Your task to perform on an android device: Search for flights from NYC to Chicago Image 0: 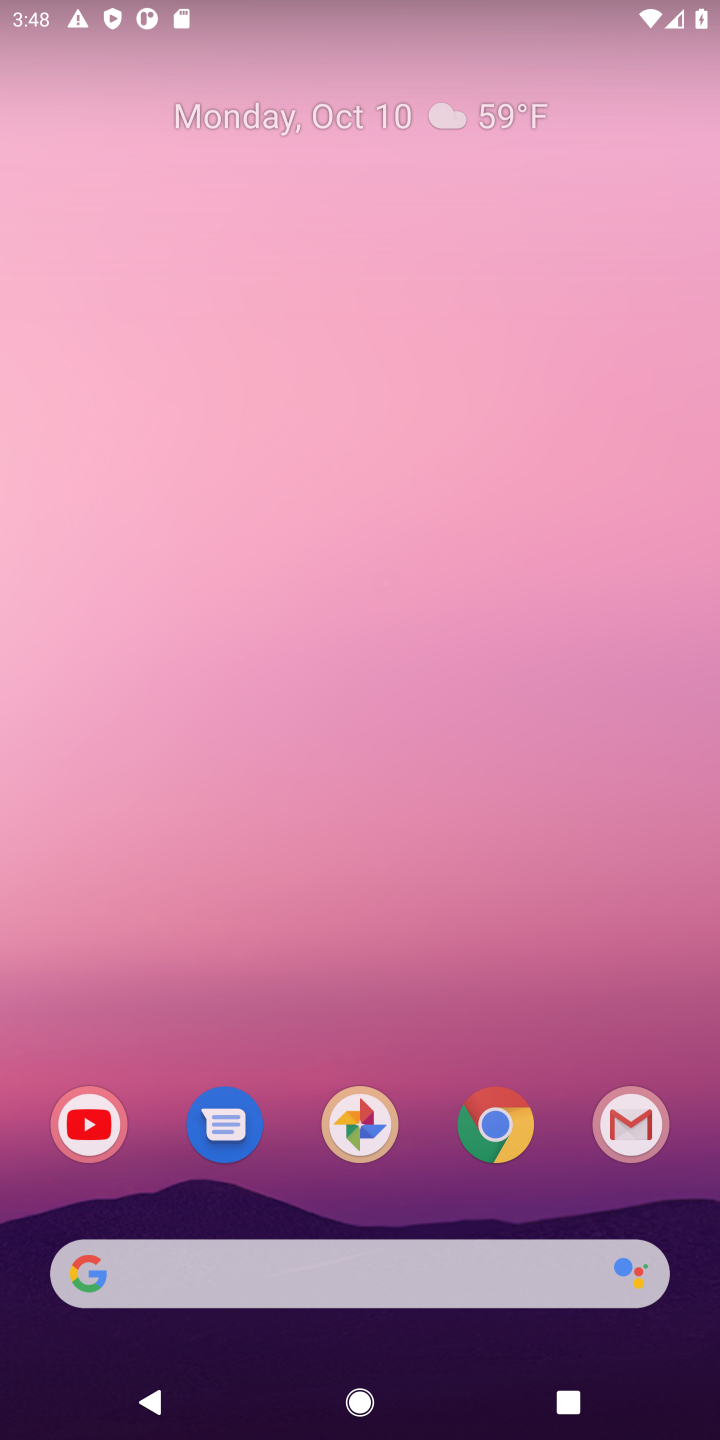
Step 0: drag from (330, 884) to (330, 359)
Your task to perform on an android device: Search for flights from NYC to Chicago Image 1: 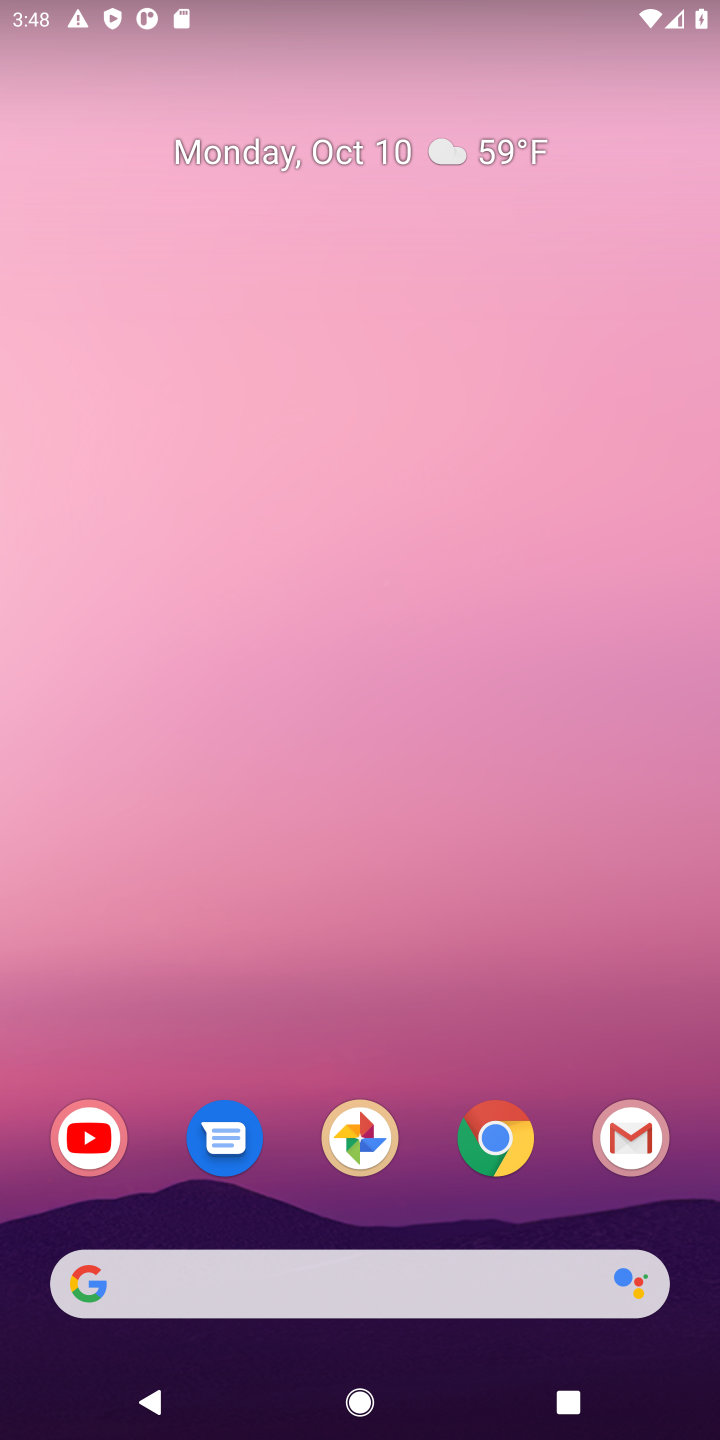
Step 1: drag from (352, 697) to (408, 284)
Your task to perform on an android device: Search for flights from NYC to Chicago Image 2: 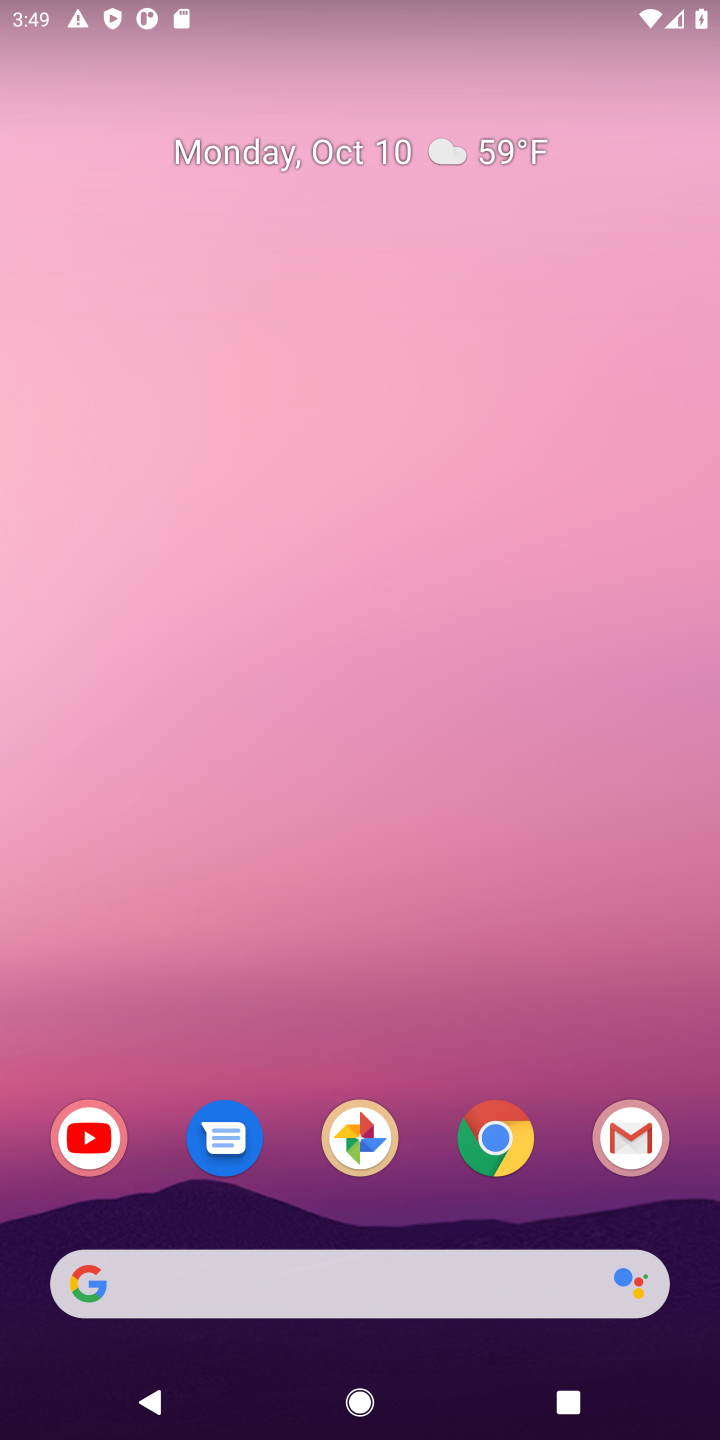
Step 2: drag from (234, 1183) to (222, 179)
Your task to perform on an android device: Search for flights from NYC to Chicago Image 3: 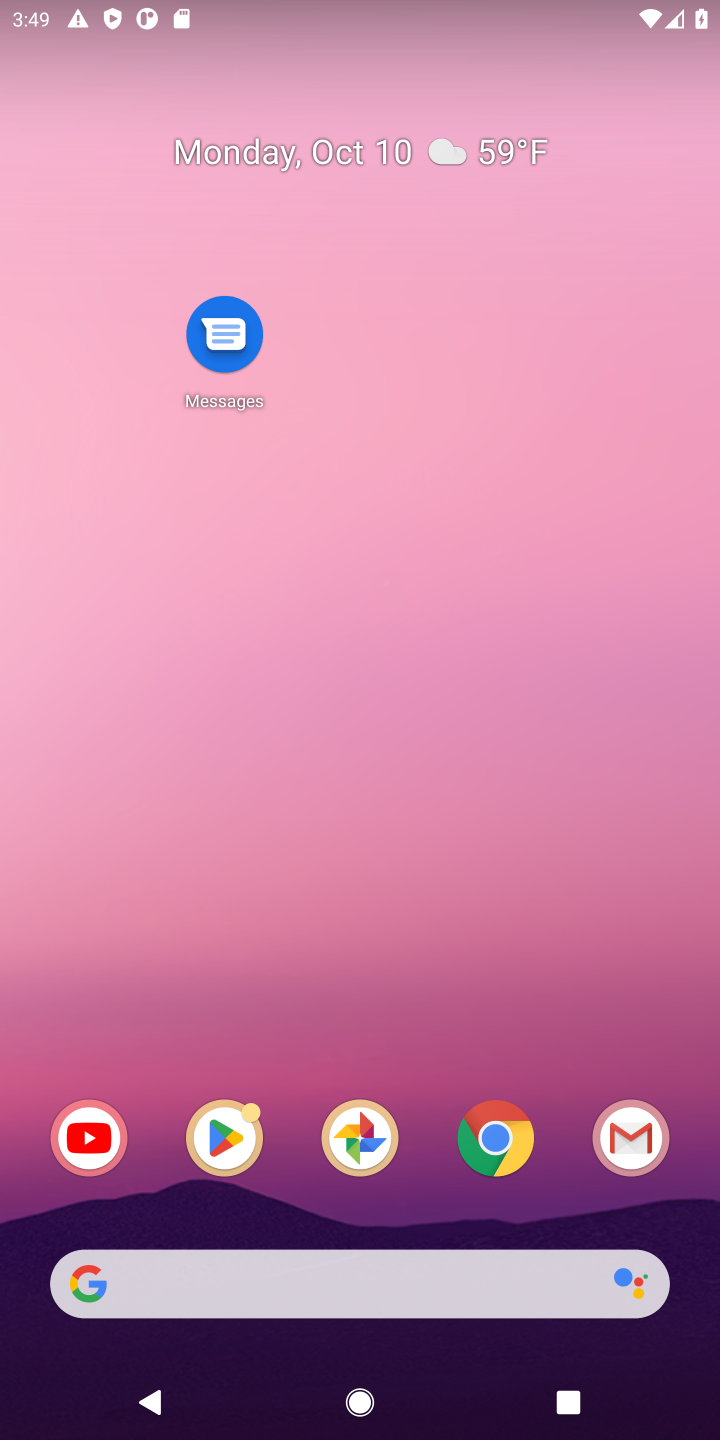
Step 3: drag from (307, 490) to (281, 136)
Your task to perform on an android device: Search for flights from NYC to Chicago Image 4: 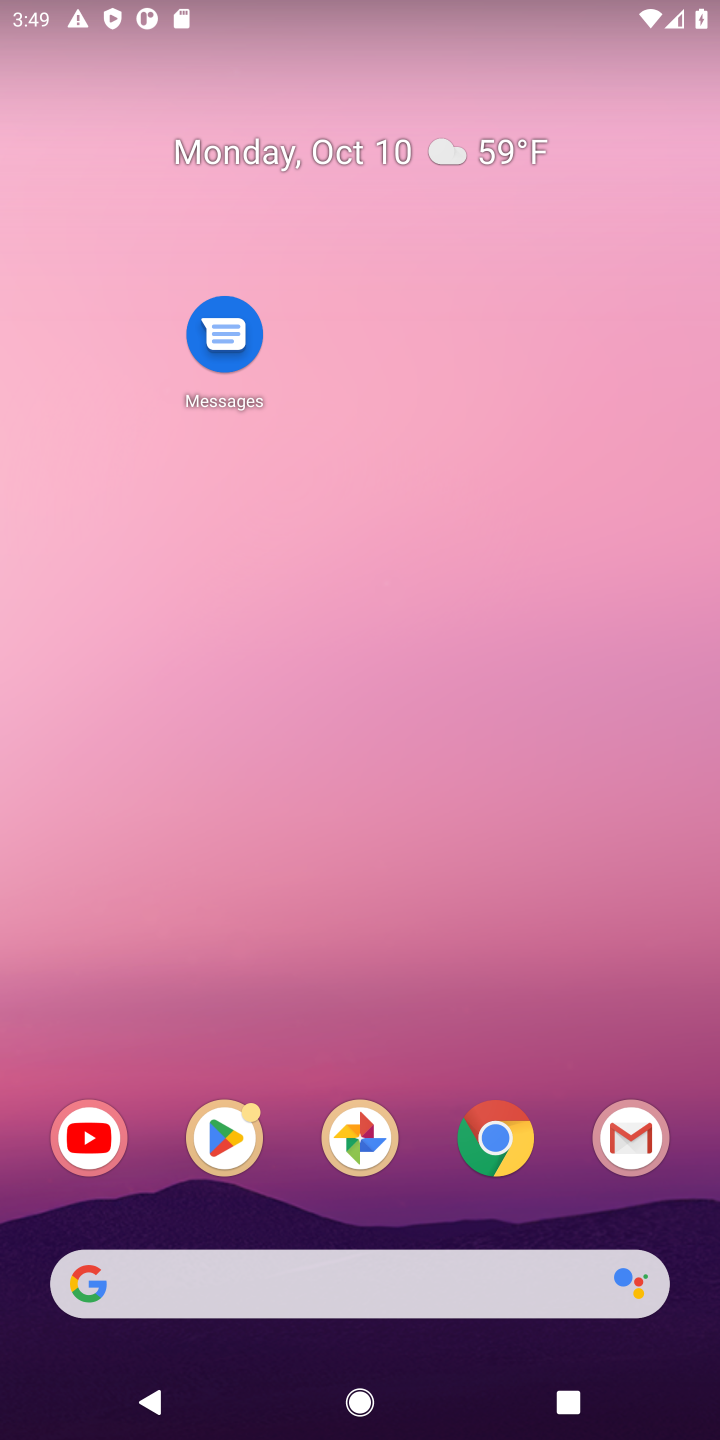
Step 4: drag from (390, 1037) to (365, 178)
Your task to perform on an android device: Search for flights from NYC to Chicago Image 5: 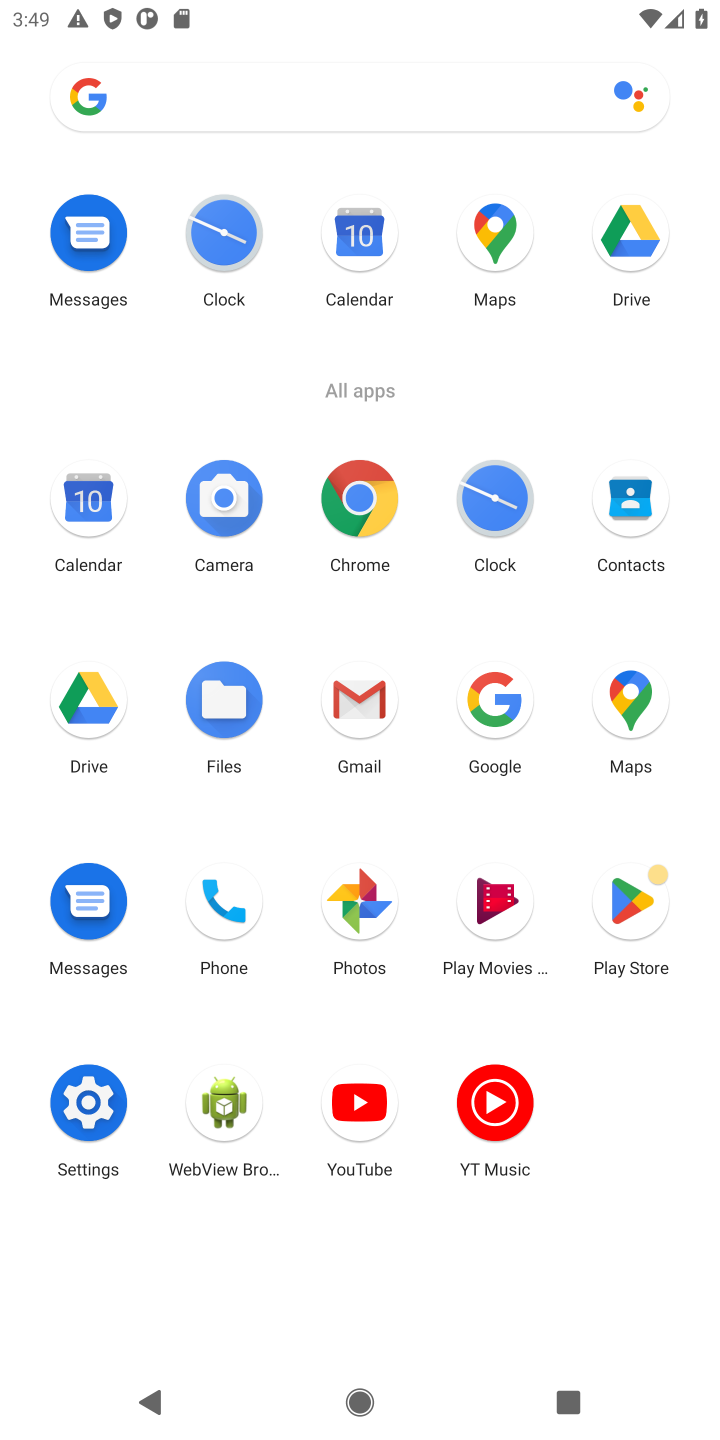
Step 5: click (480, 710)
Your task to perform on an android device: Search for flights from NYC to Chicago Image 6: 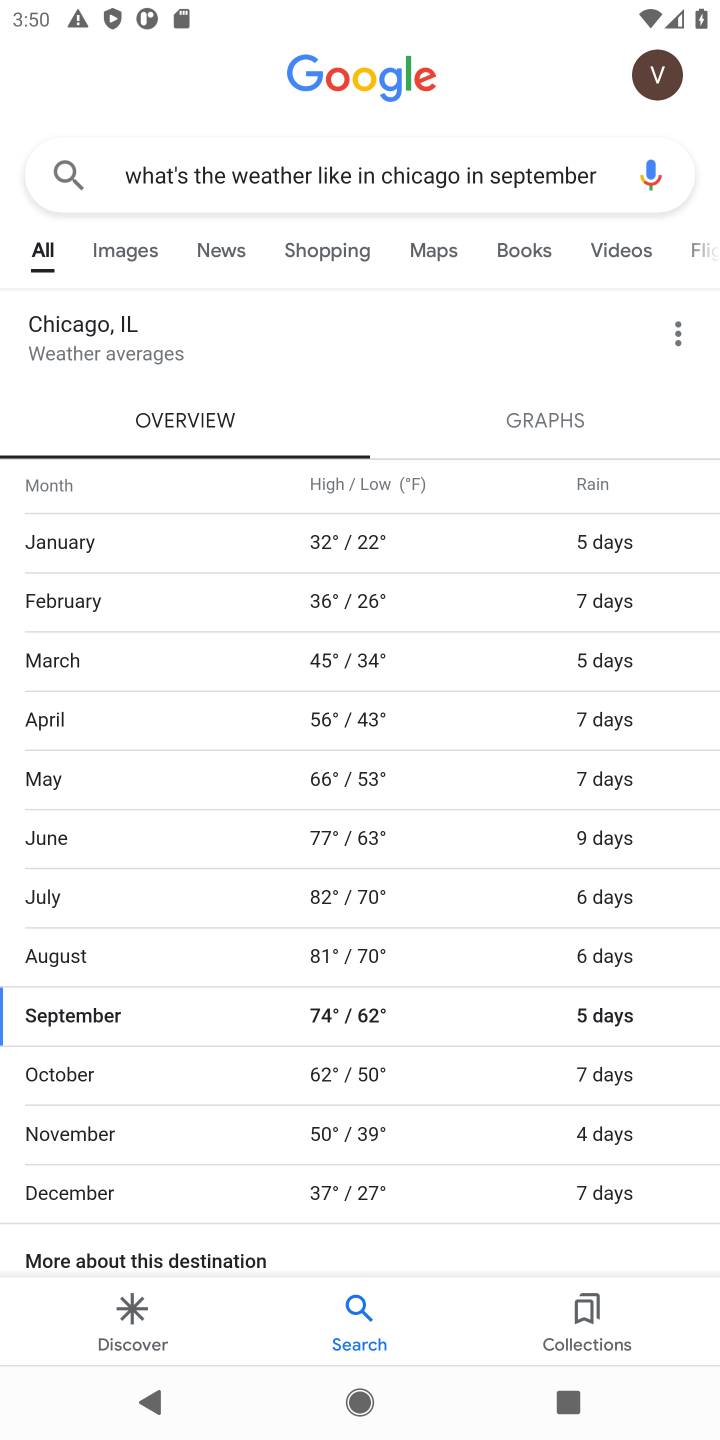
Step 6: click (241, 173)
Your task to perform on an android device: Search for flights from NYC to Chicago Image 7: 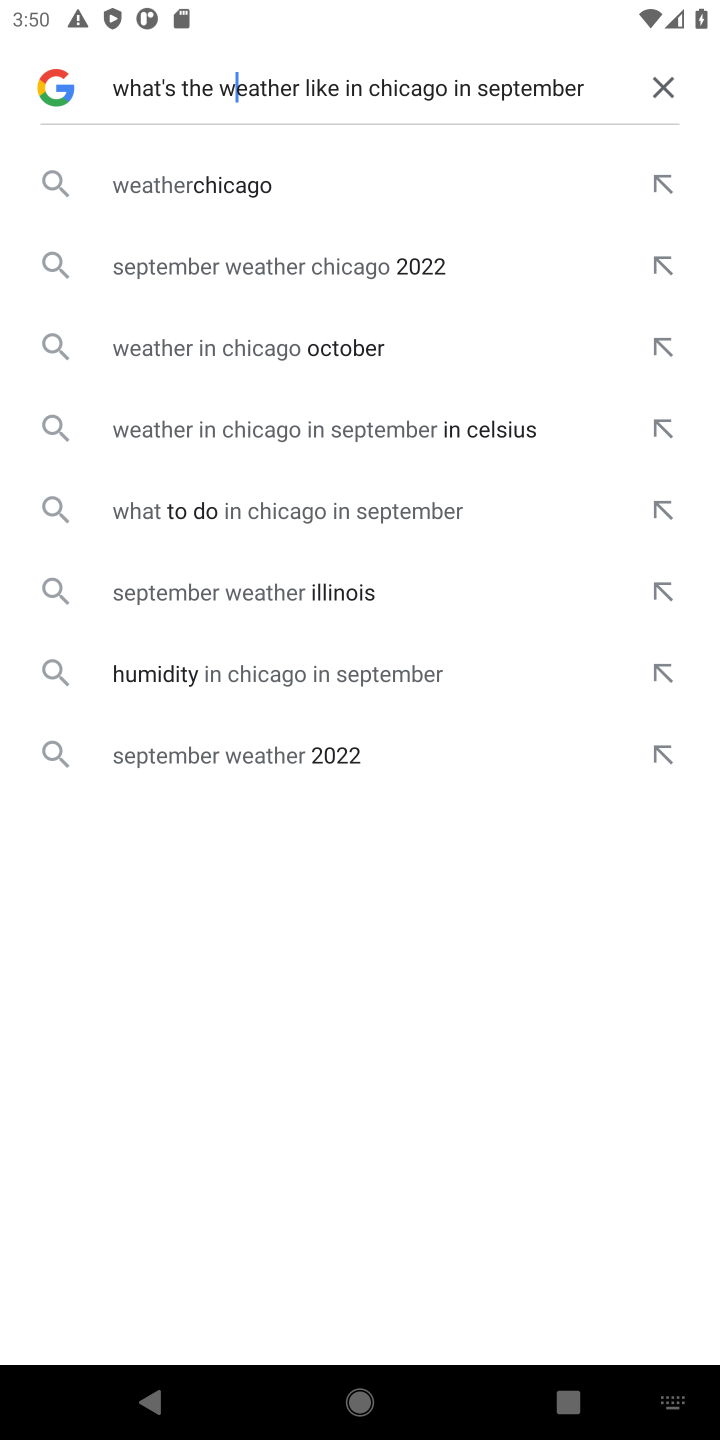
Step 7: click (670, 88)
Your task to perform on an android device: Search for flights from NYC to Chicago Image 8: 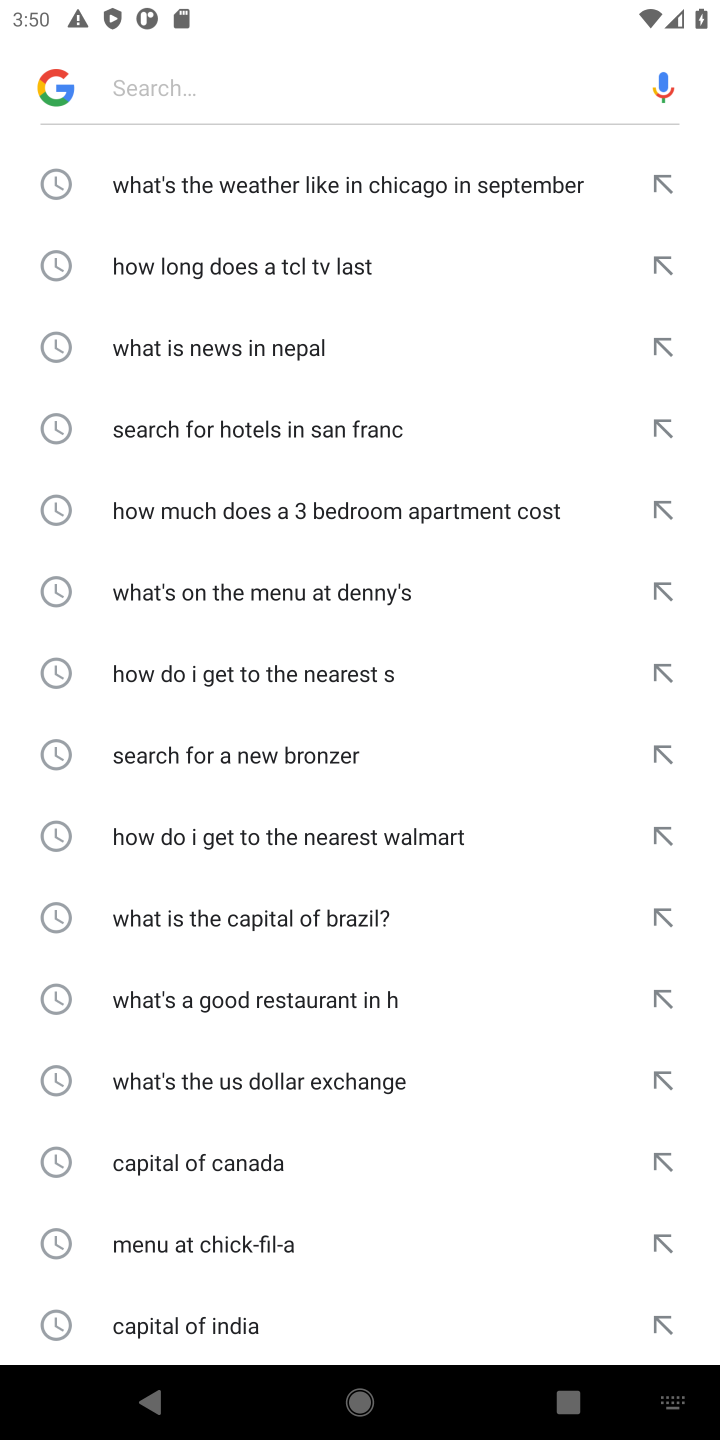
Step 8: type "Search for flights from NYC to Chicago"
Your task to perform on an android device: Search for flights from NYC to Chicago Image 9: 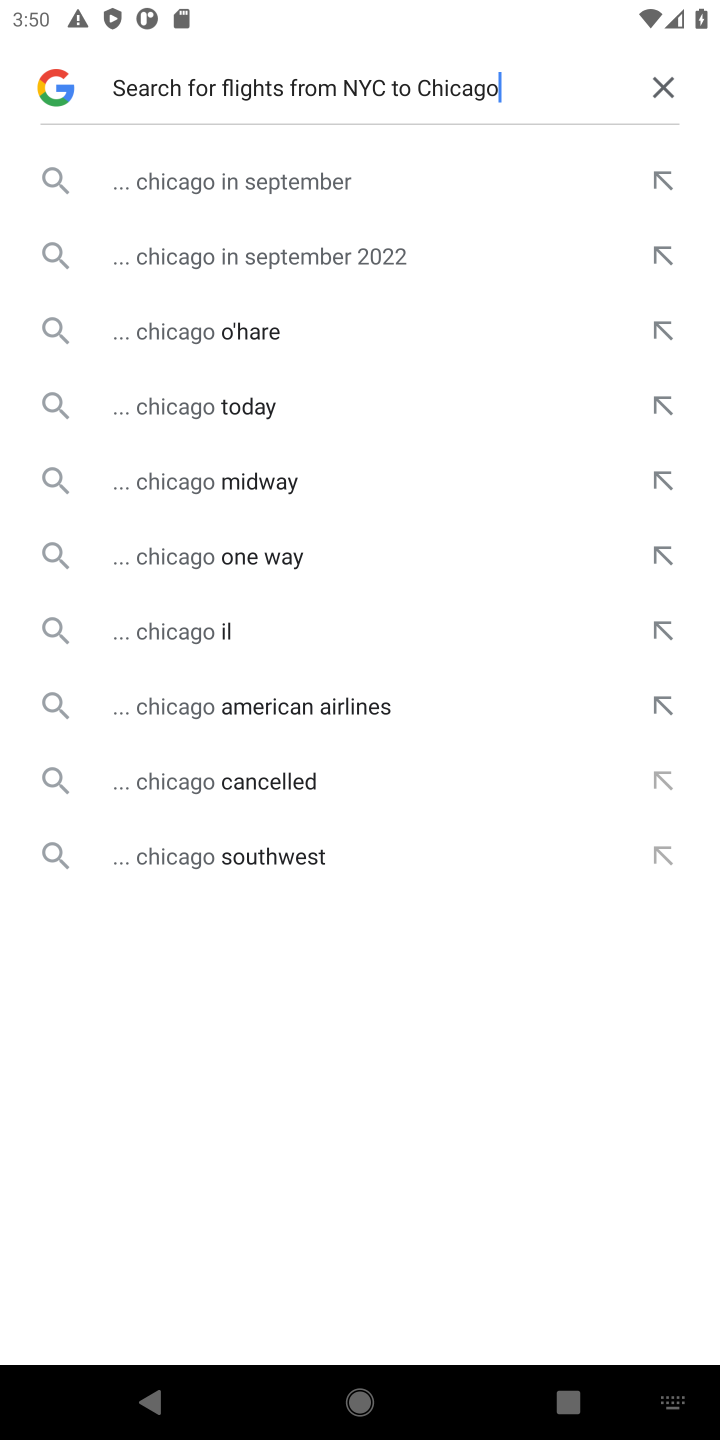
Step 9: click (309, 179)
Your task to perform on an android device: Search for flights from NYC to Chicago Image 10: 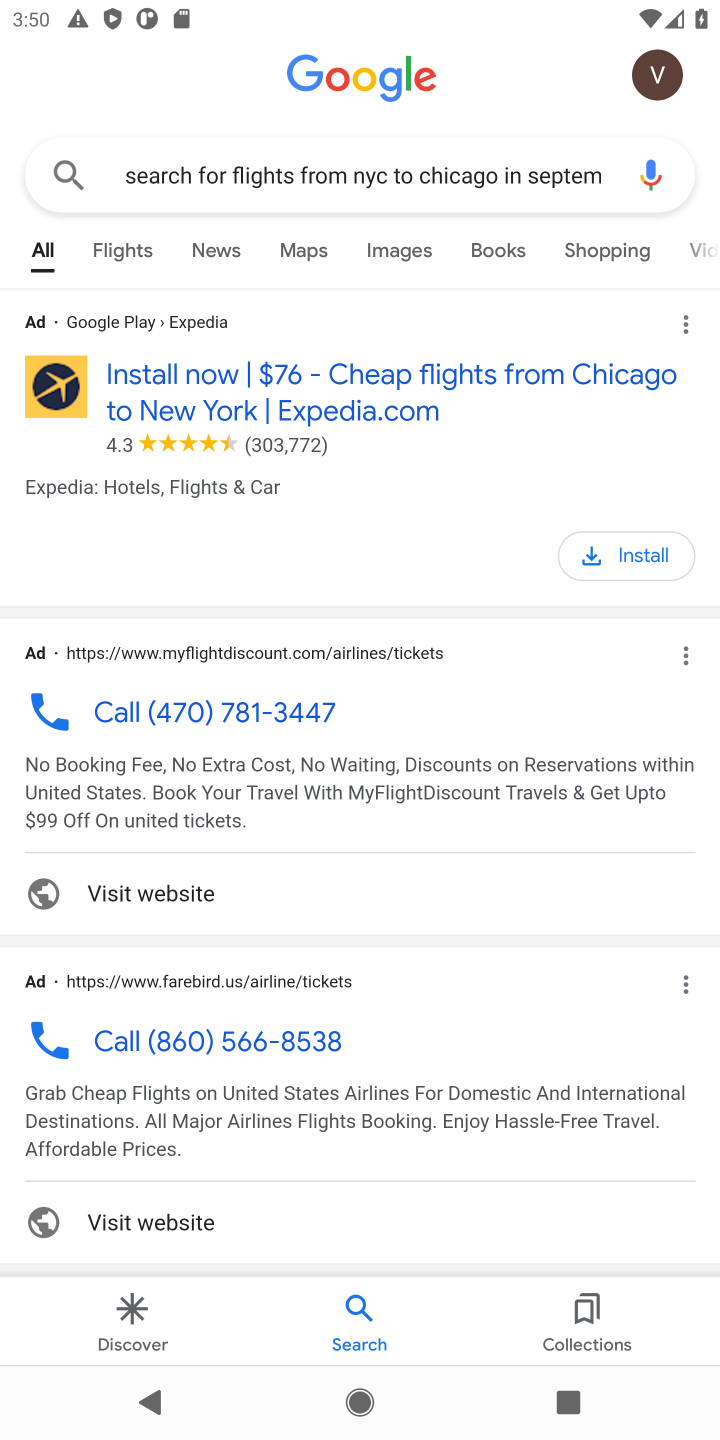
Step 10: click (281, 372)
Your task to perform on an android device: Search for flights from NYC to Chicago Image 11: 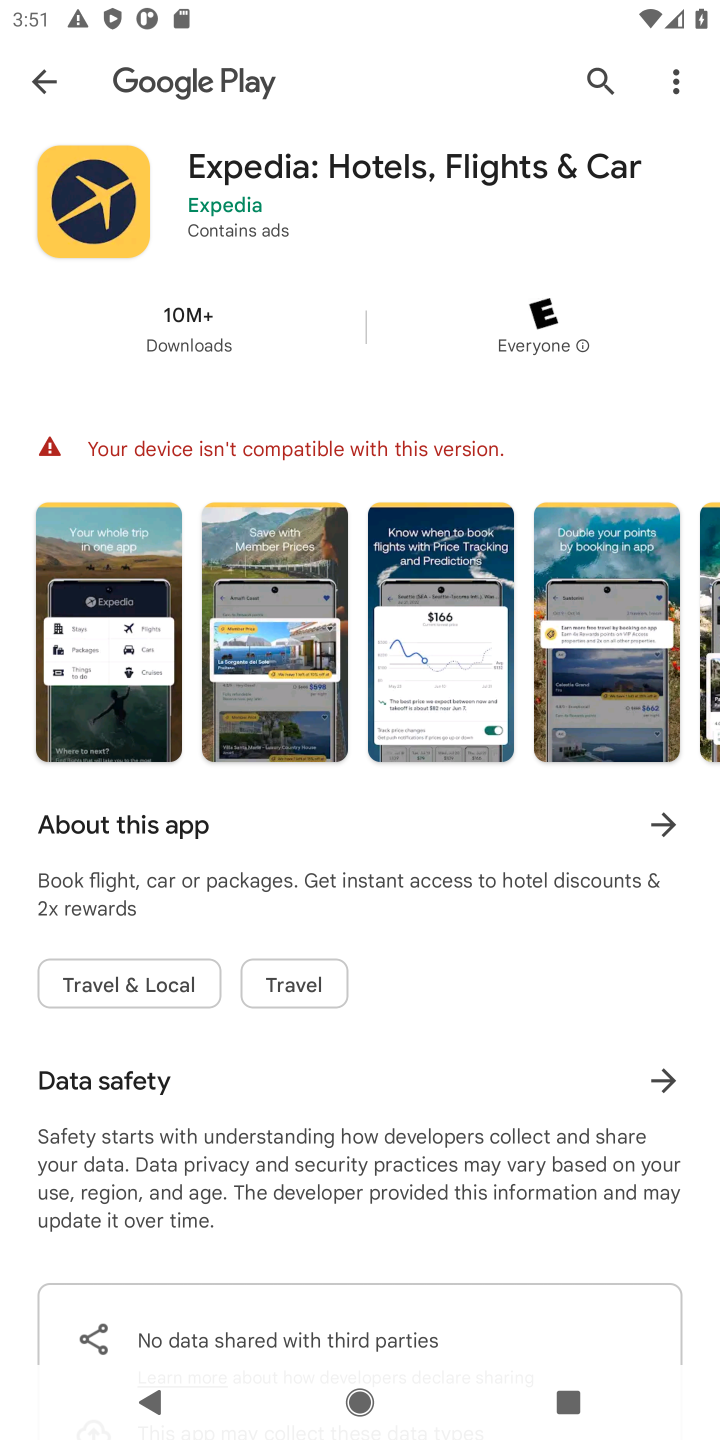
Step 11: task complete